Your task to perform on an android device: turn on sleep mode Image 0: 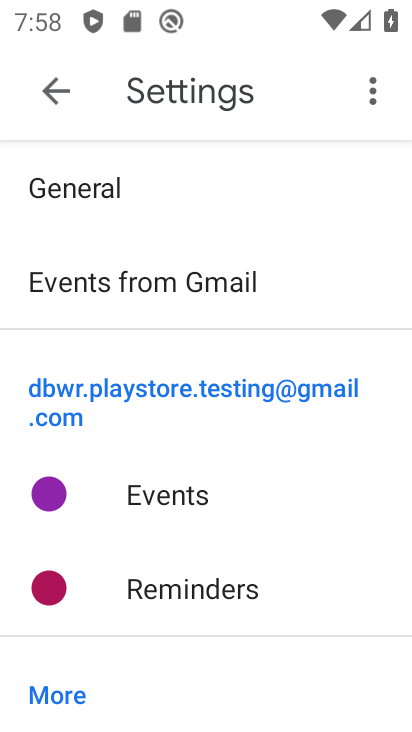
Step 0: press back button
Your task to perform on an android device: turn on sleep mode Image 1: 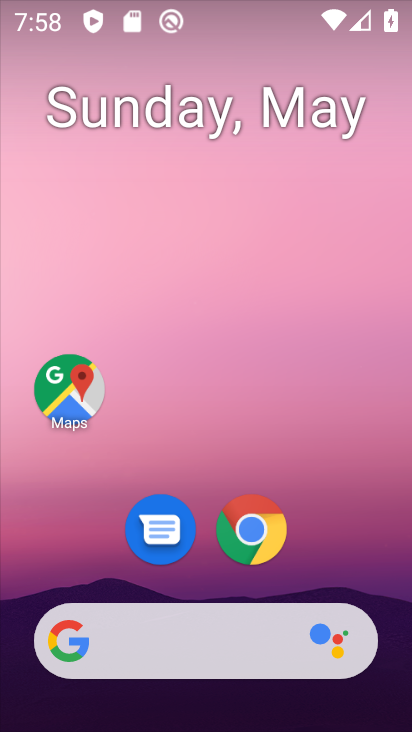
Step 1: drag from (180, 575) to (226, 64)
Your task to perform on an android device: turn on sleep mode Image 2: 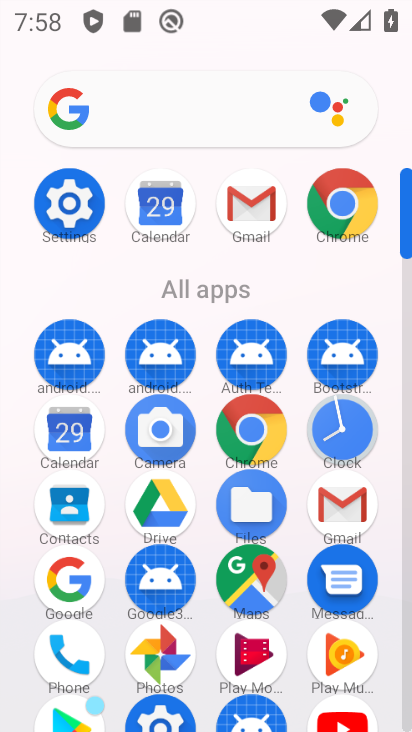
Step 2: click (82, 214)
Your task to perform on an android device: turn on sleep mode Image 3: 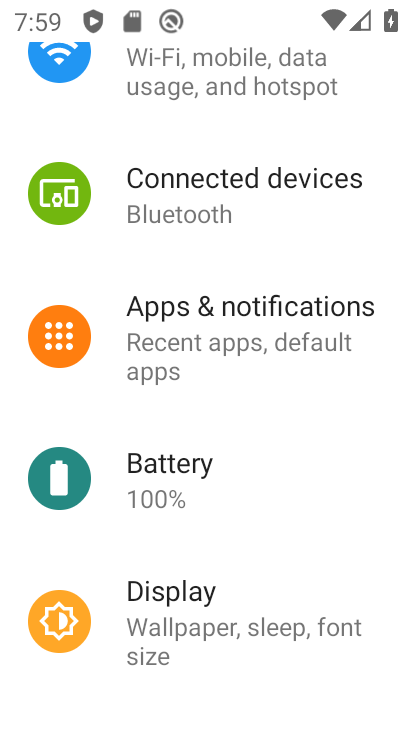
Step 3: drag from (177, 200) to (177, 731)
Your task to perform on an android device: turn on sleep mode Image 4: 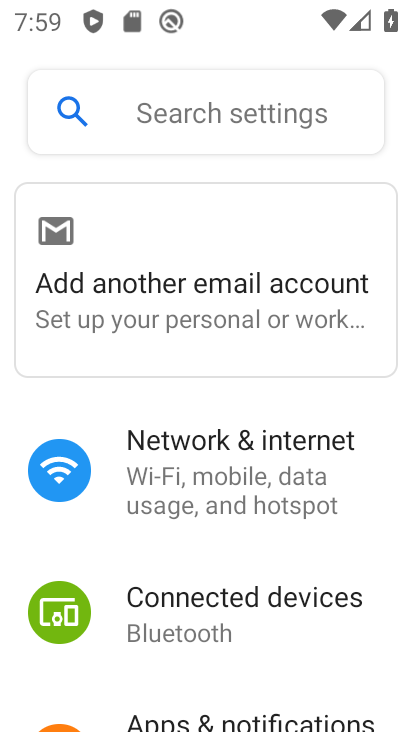
Step 4: click (183, 104)
Your task to perform on an android device: turn on sleep mode Image 5: 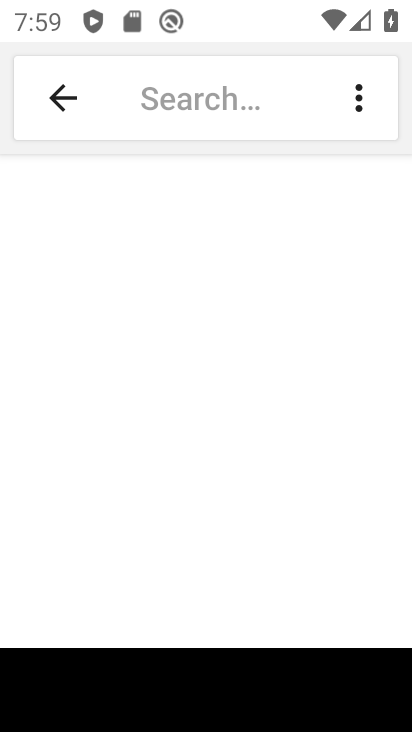
Step 5: type "sleep mode"
Your task to perform on an android device: turn on sleep mode Image 6: 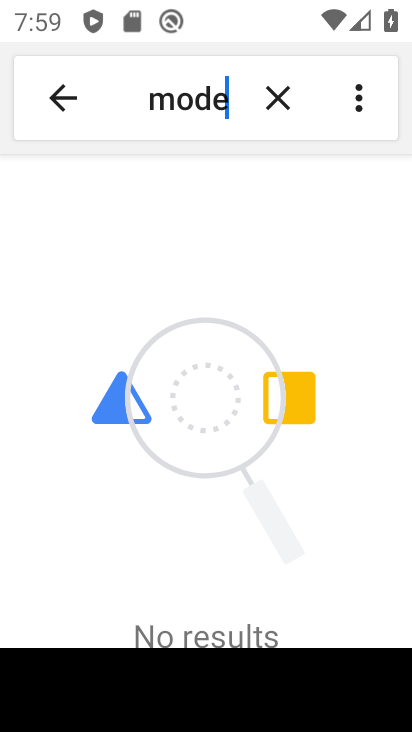
Step 6: task complete